Your task to perform on an android device: Open sound settings Image 0: 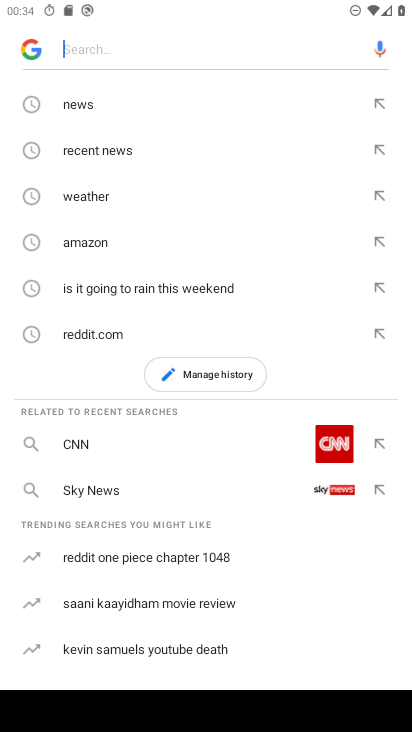
Step 0: press home button
Your task to perform on an android device: Open sound settings Image 1: 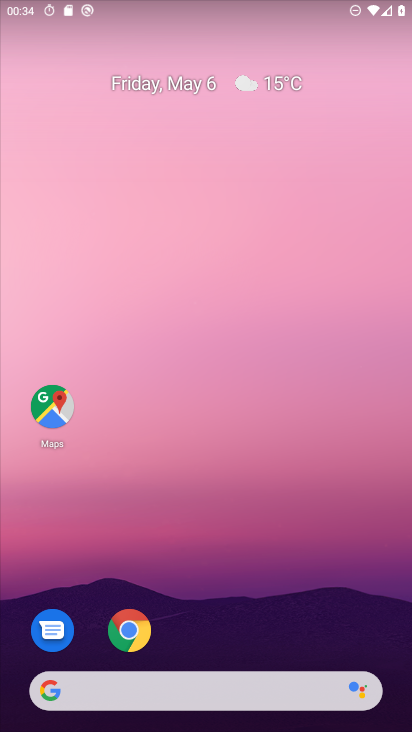
Step 1: drag from (233, 535) to (249, 114)
Your task to perform on an android device: Open sound settings Image 2: 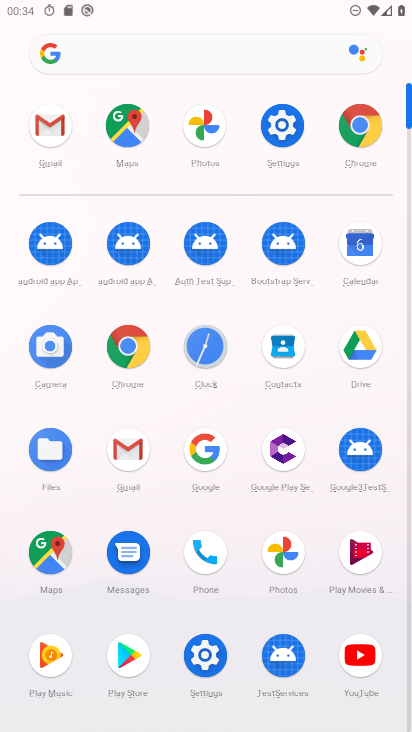
Step 2: click (274, 115)
Your task to perform on an android device: Open sound settings Image 3: 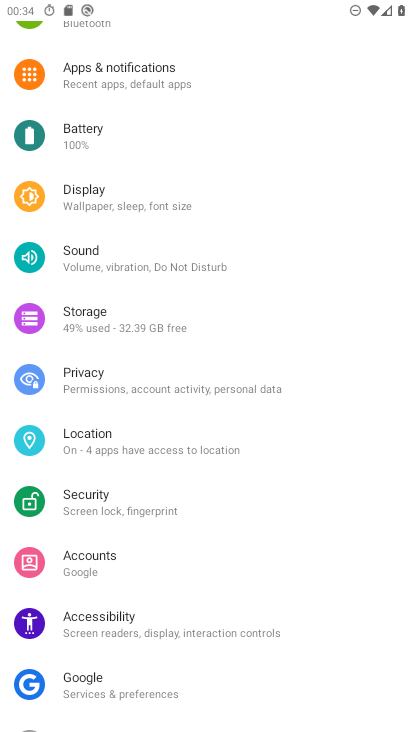
Step 3: click (108, 247)
Your task to perform on an android device: Open sound settings Image 4: 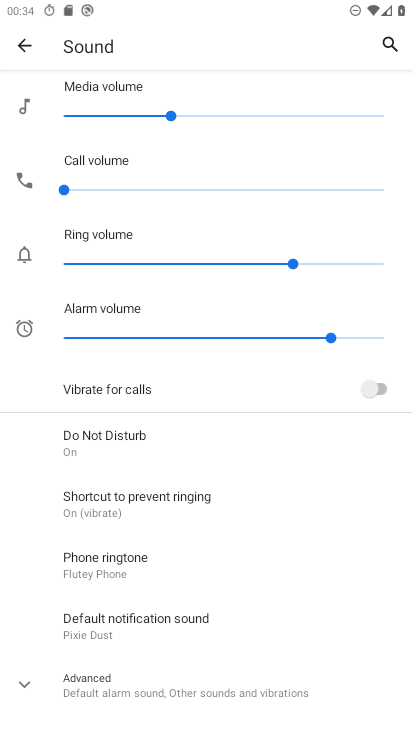
Step 4: task complete